Your task to perform on an android device: Open Google Chrome and open the bookmarks view Image 0: 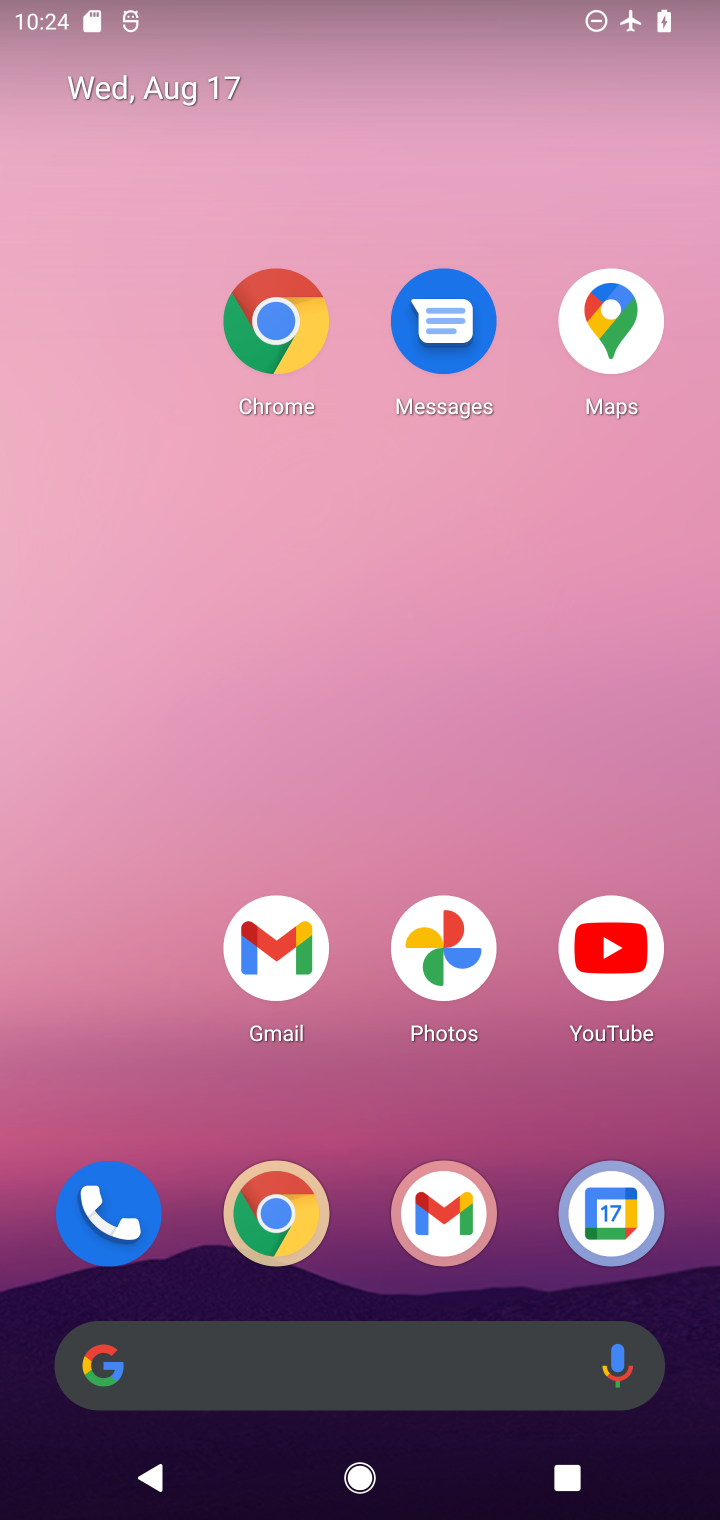
Step 0: click (300, 1217)
Your task to perform on an android device: Open Google Chrome and open the bookmarks view Image 1: 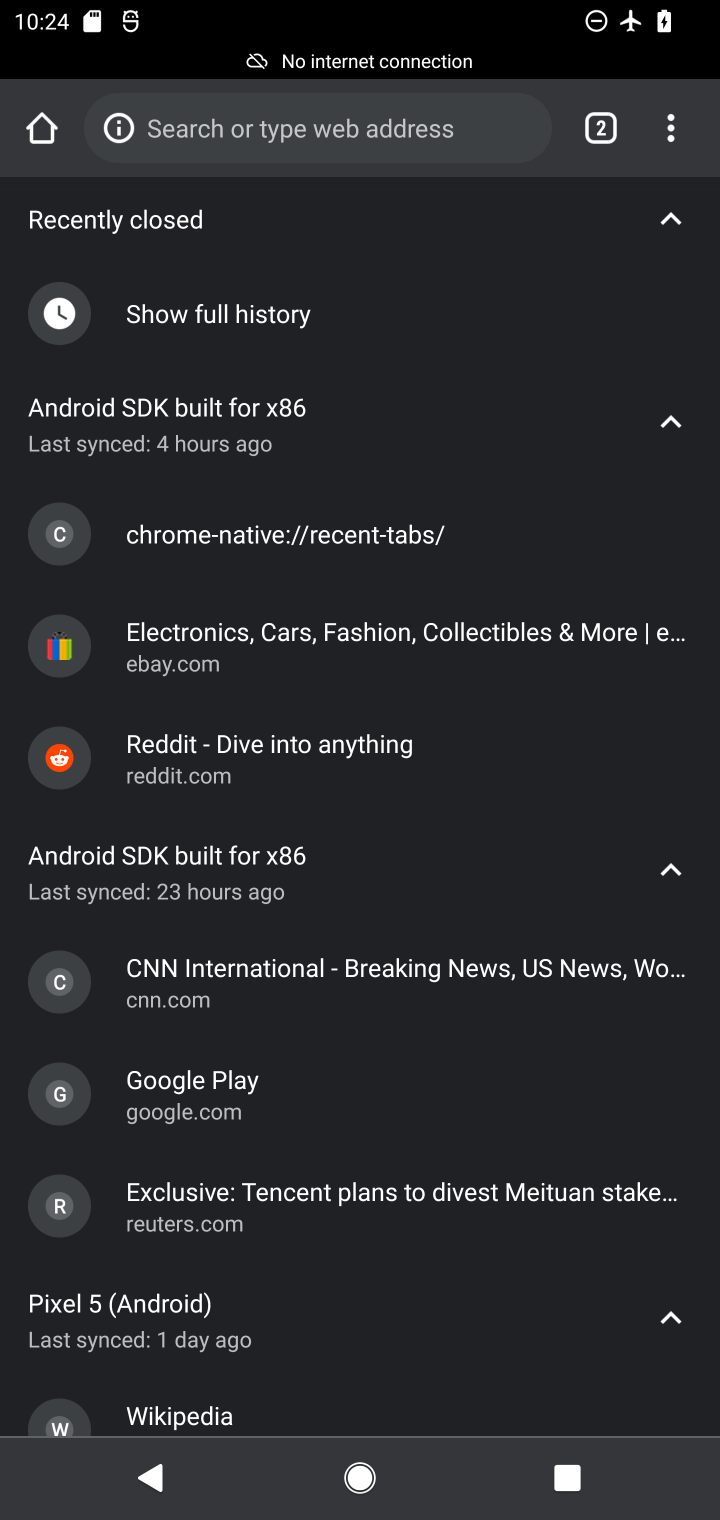
Step 1: click (673, 132)
Your task to perform on an android device: Open Google Chrome and open the bookmarks view Image 2: 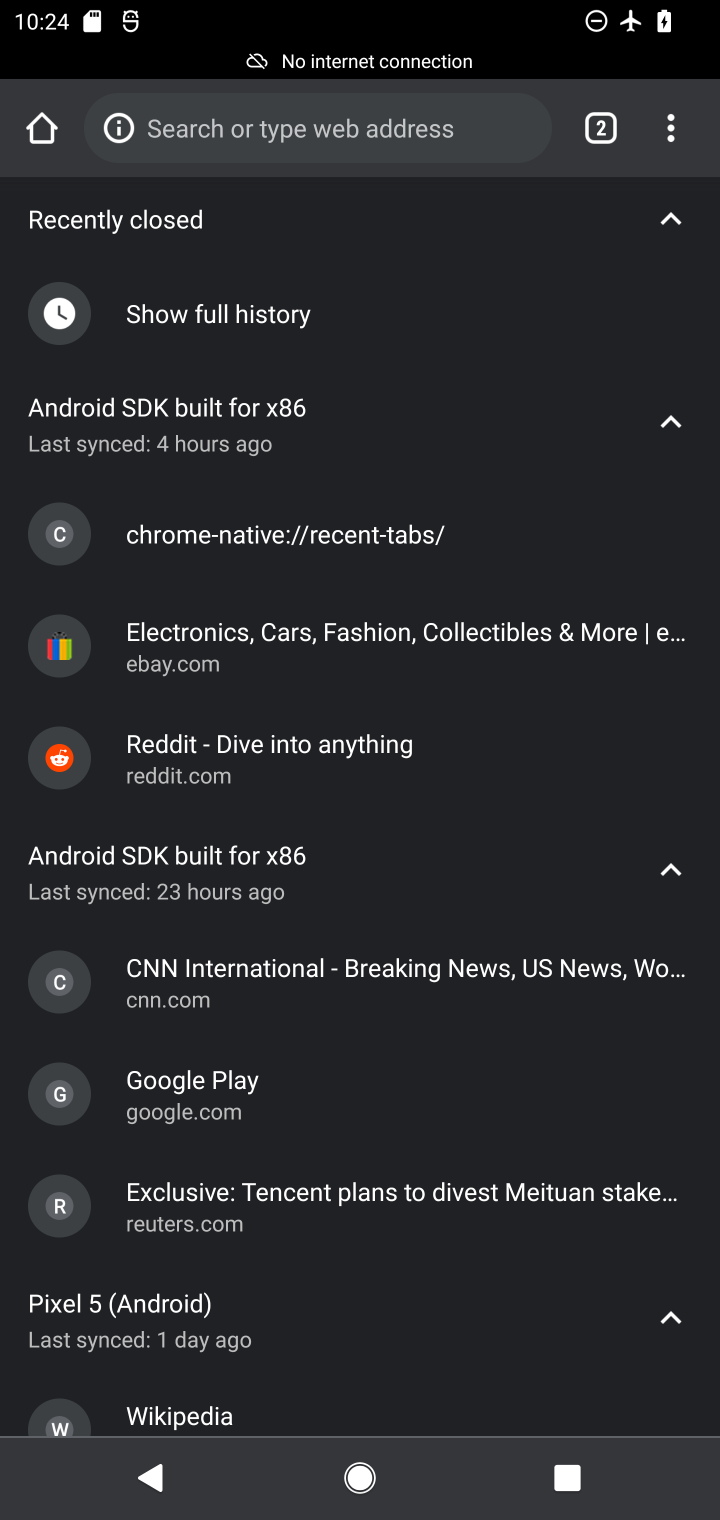
Step 2: click (674, 125)
Your task to perform on an android device: Open Google Chrome and open the bookmarks view Image 3: 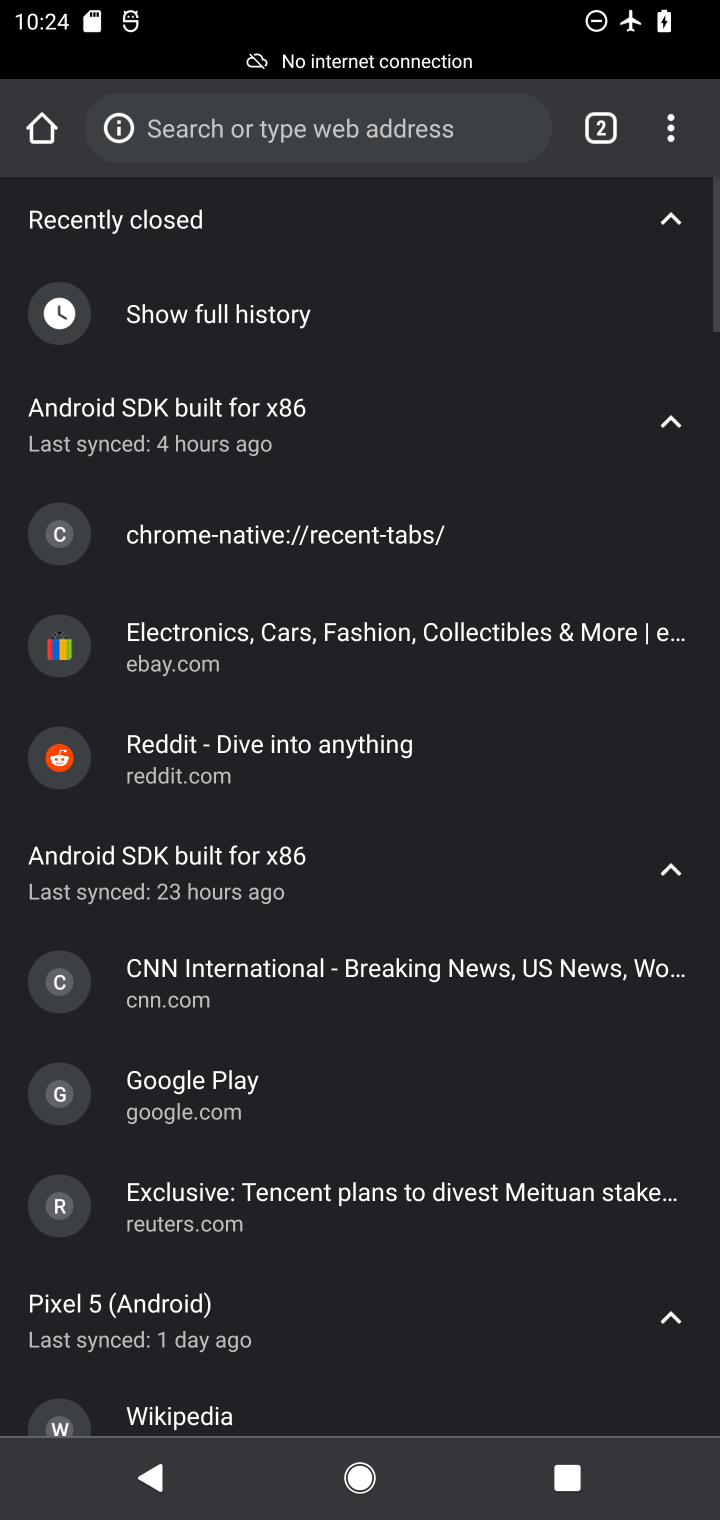
Step 3: task complete